Your task to perform on an android device: set an alarm Image 0: 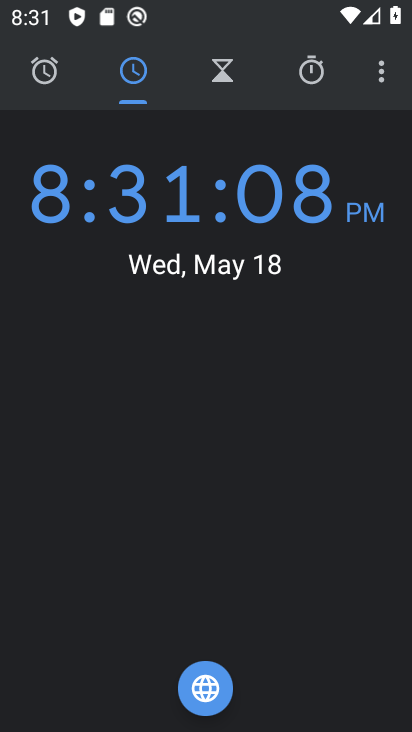
Step 0: press home button
Your task to perform on an android device: set an alarm Image 1: 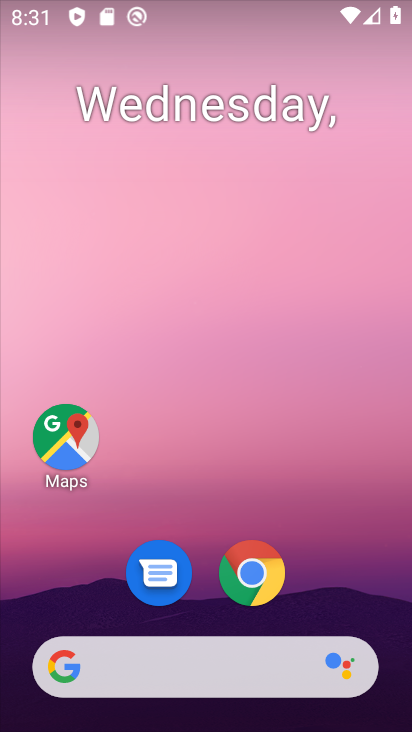
Step 1: drag from (249, 613) to (255, 141)
Your task to perform on an android device: set an alarm Image 2: 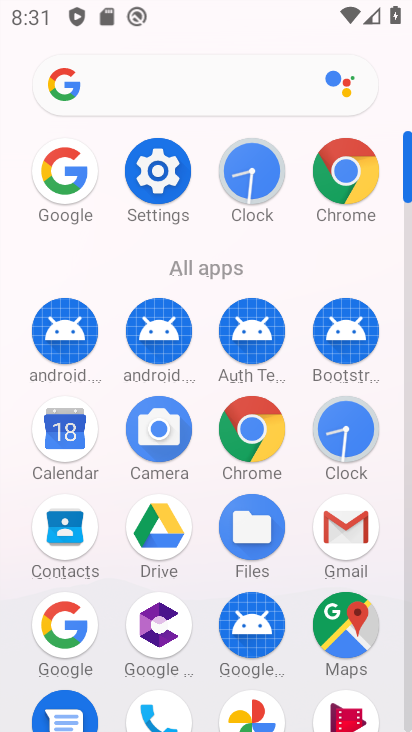
Step 2: drag from (213, 598) to (210, 372)
Your task to perform on an android device: set an alarm Image 3: 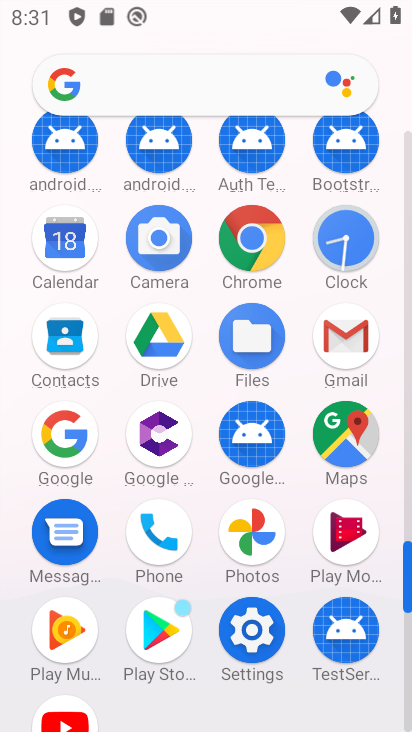
Step 3: drag from (206, 385) to (216, 647)
Your task to perform on an android device: set an alarm Image 4: 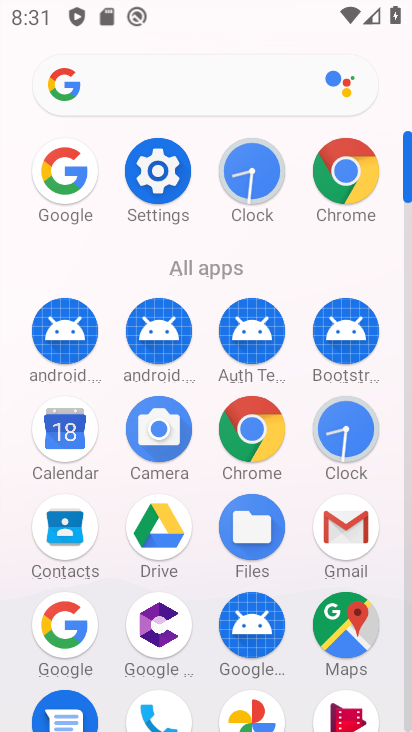
Step 4: click (340, 447)
Your task to perform on an android device: set an alarm Image 5: 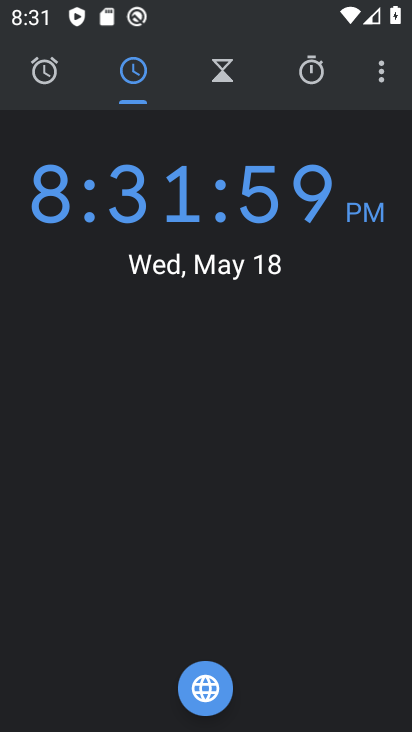
Step 5: click (38, 93)
Your task to perform on an android device: set an alarm Image 6: 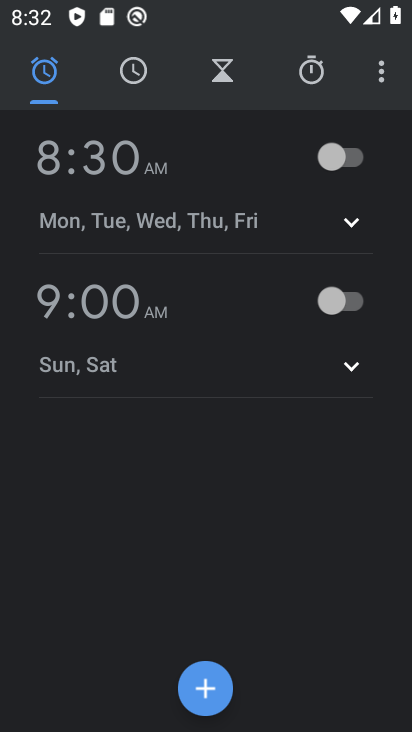
Step 6: click (206, 694)
Your task to perform on an android device: set an alarm Image 7: 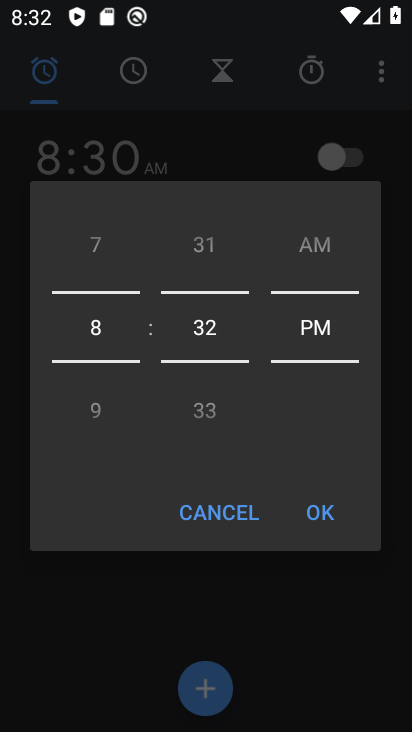
Step 7: click (311, 510)
Your task to perform on an android device: set an alarm Image 8: 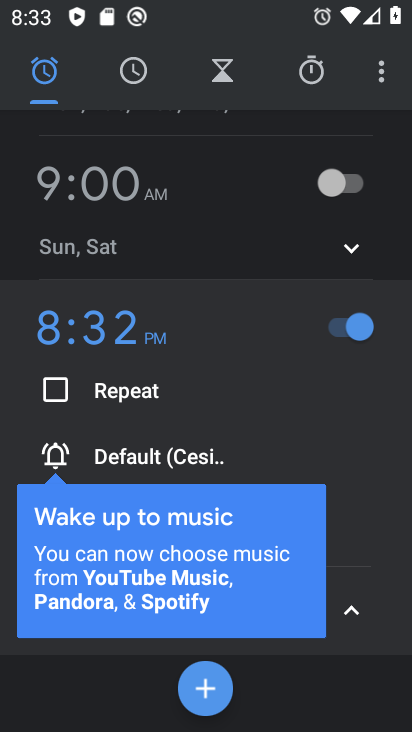
Step 8: task complete